Your task to perform on an android device: Open Google Chrome Image 0: 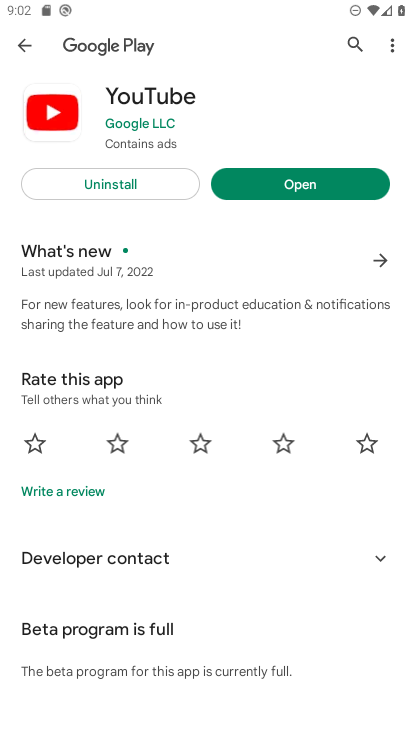
Step 0: press home button
Your task to perform on an android device: Open Google Chrome Image 1: 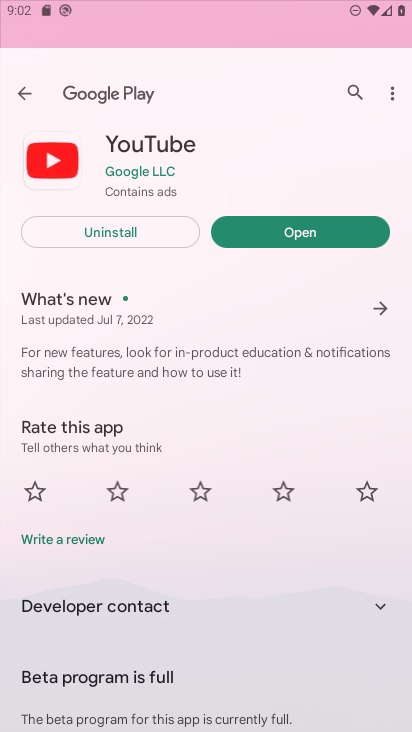
Step 1: drag from (319, 659) to (240, 4)
Your task to perform on an android device: Open Google Chrome Image 2: 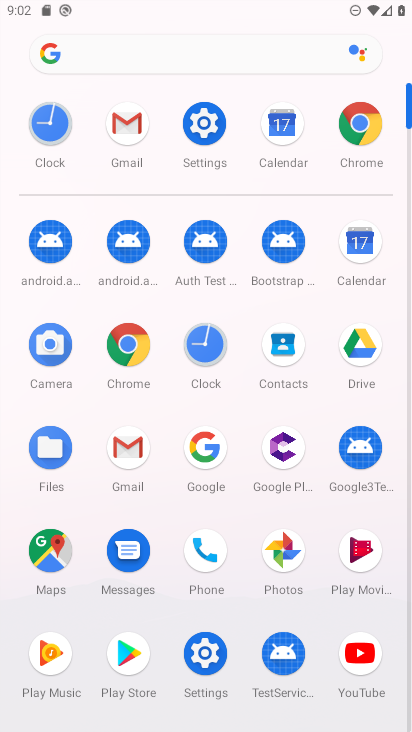
Step 2: click (366, 135)
Your task to perform on an android device: Open Google Chrome Image 3: 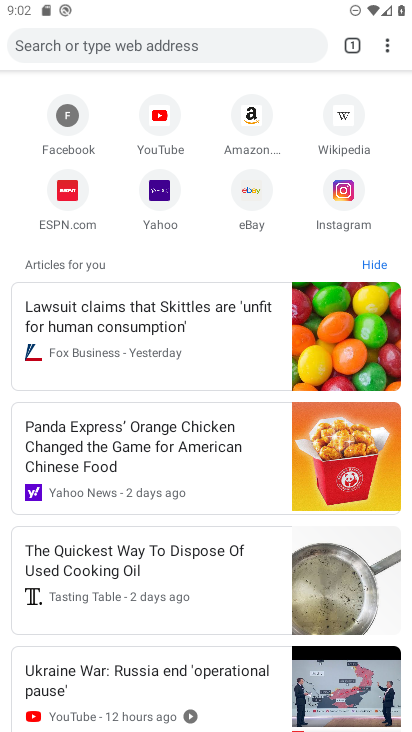
Step 3: task complete